Your task to perform on an android device: Show me popular games on the Play Store Image 0: 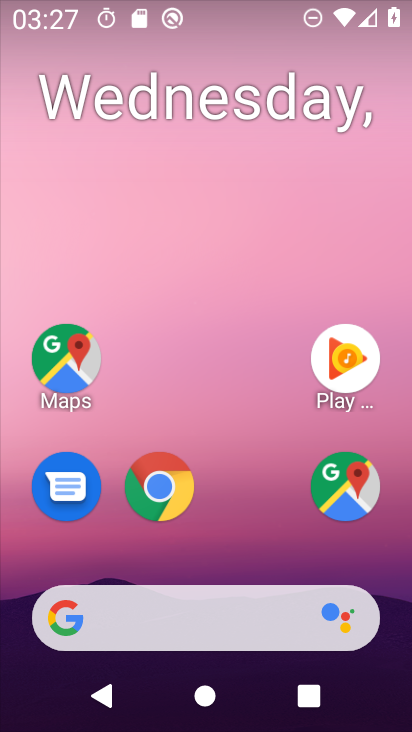
Step 0: drag from (252, 528) to (271, 105)
Your task to perform on an android device: Show me popular games on the Play Store Image 1: 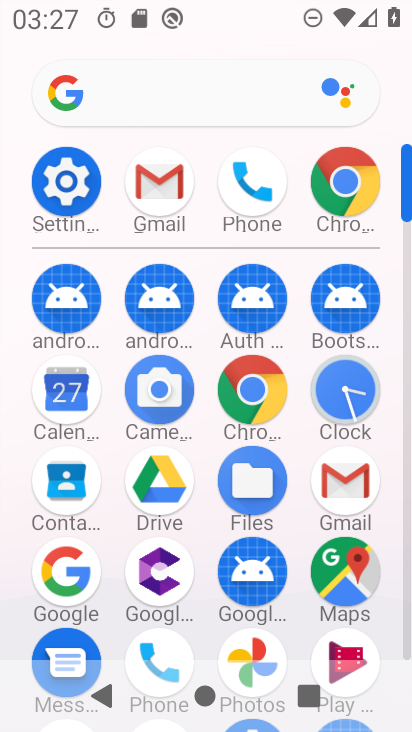
Step 1: drag from (388, 505) to (407, 364)
Your task to perform on an android device: Show me popular games on the Play Store Image 2: 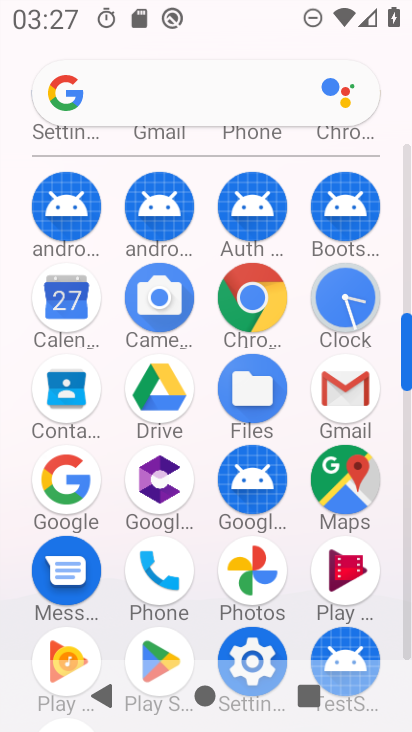
Step 2: drag from (198, 546) to (204, 387)
Your task to perform on an android device: Show me popular games on the Play Store Image 3: 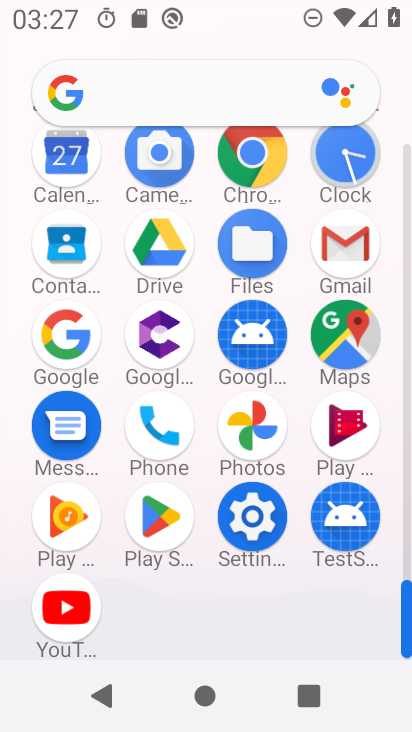
Step 3: click (160, 522)
Your task to perform on an android device: Show me popular games on the Play Store Image 4: 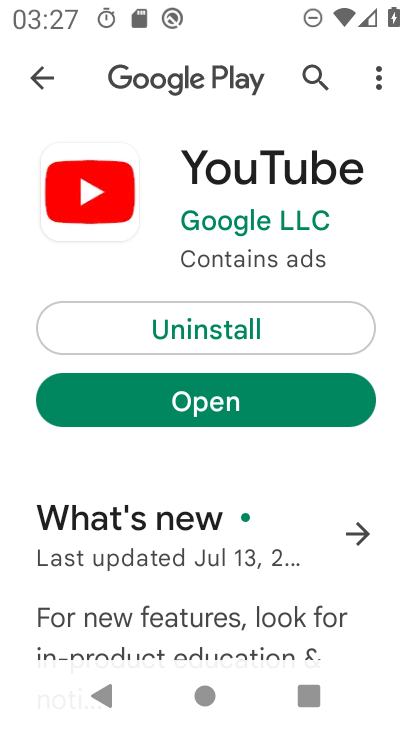
Step 4: press back button
Your task to perform on an android device: Show me popular games on the Play Store Image 5: 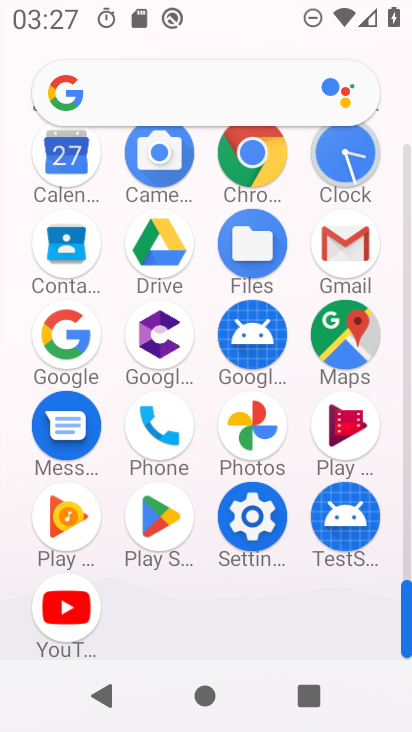
Step 5: click (150, 546)
Your task to perform on an android device: Show me popular games on the Play Store Image 6: 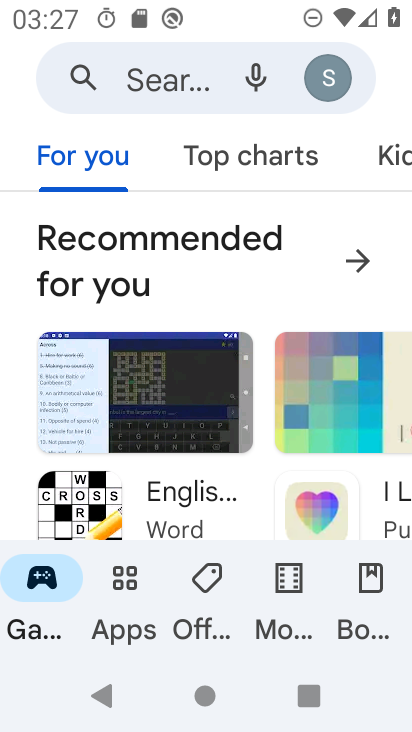
Step 6: task complete